Your task to perform on an android device: refresh tabs in the chrome app Image 0: 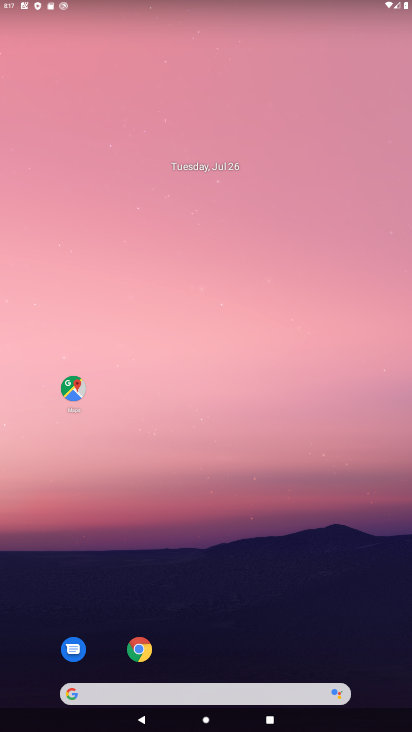
Step 0: click (140, 645)
Your task to perform on an android device: refresh tabs in the chrome app Image 1: 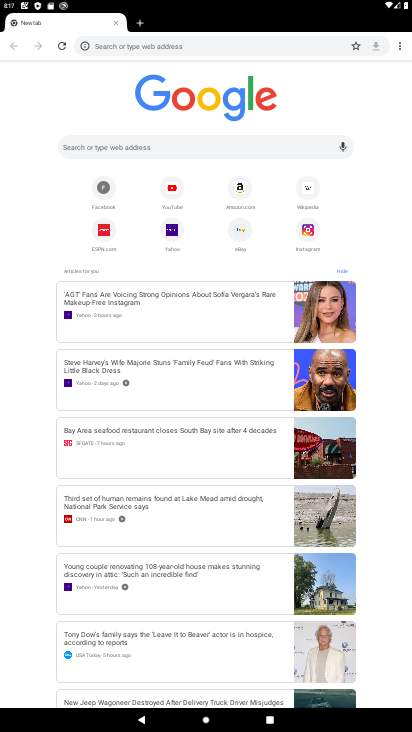
Step 1: click (404, 47)
Your task to perform on an android device: refresh tabs in the chrome app Image 2: 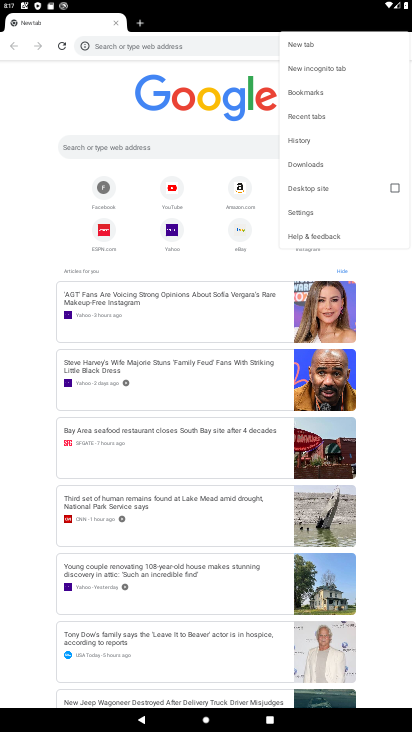
Step 2: click (66, 45)
Your task to perform on an android device: refresh tabs in the chrome app Image 3: 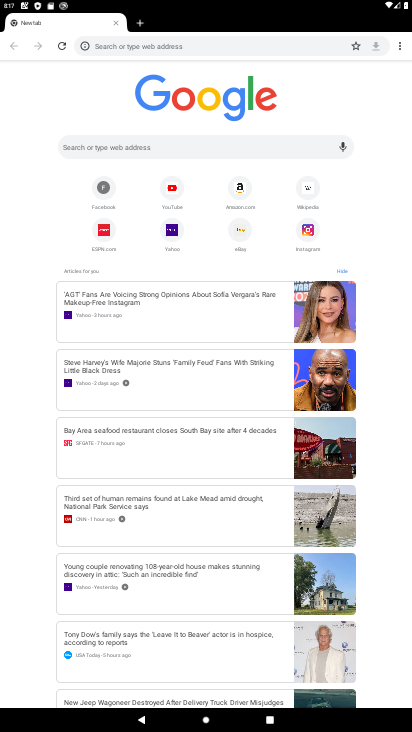
Step 3: click (66, 45)
Your task to perform on an android device: refresh tabs in the chrome app Image 4: 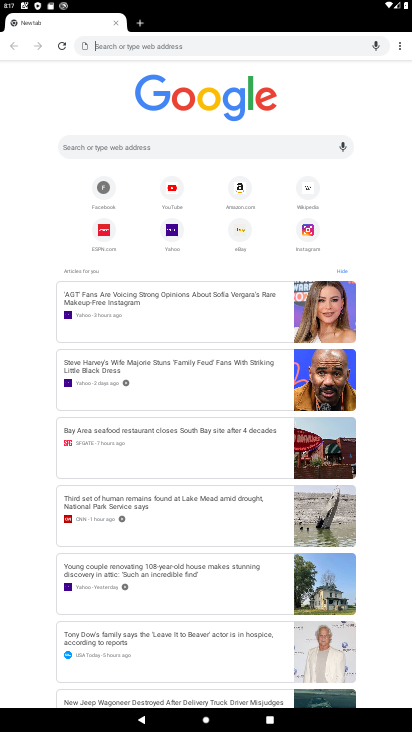
Step 4: task complete